Your task to perform on an android device: change the clock display to digital Image 0: 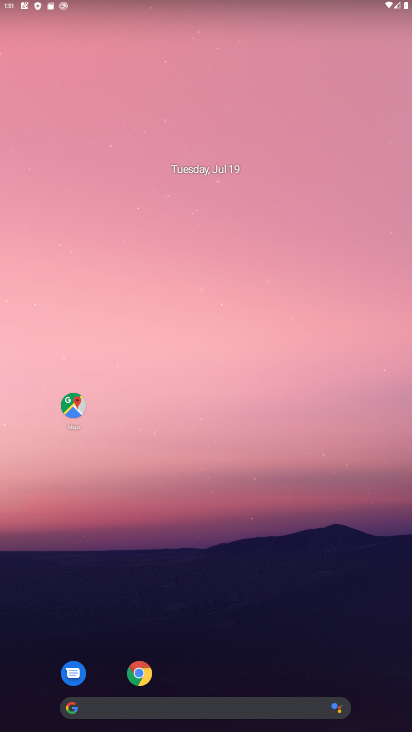
Step 0: drag from (232, 707) to (256, 367)
Your task to perform on an android device: change the clock display to digital Image 1: 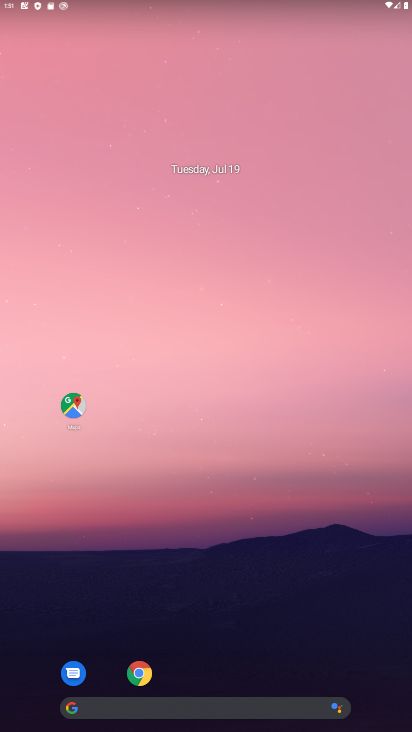
Step 1: drag from (195, 708) to (347, 149)
Your task to perform on an android device: change the clock display to digital Image 2: 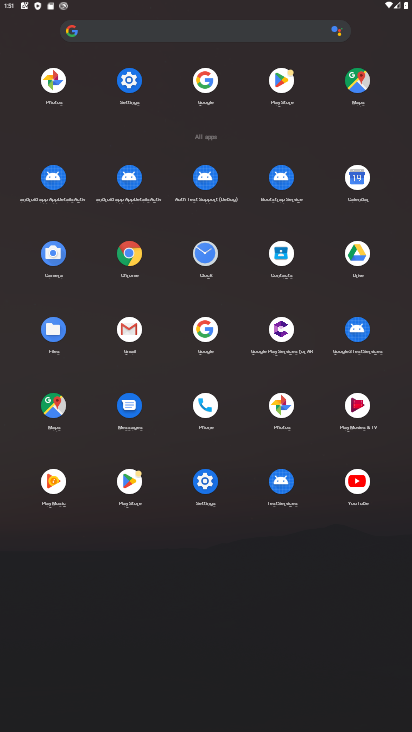
Step 2: click (205, 253)
Your task to perform on an android device: change the clock display to digital Image 3: 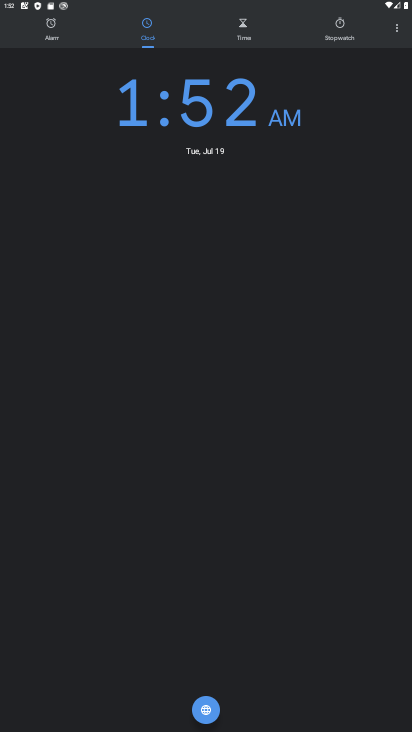
Step 3: click (399, 28)
Your task to perform on an android device: change the clock display to digital Image 4: 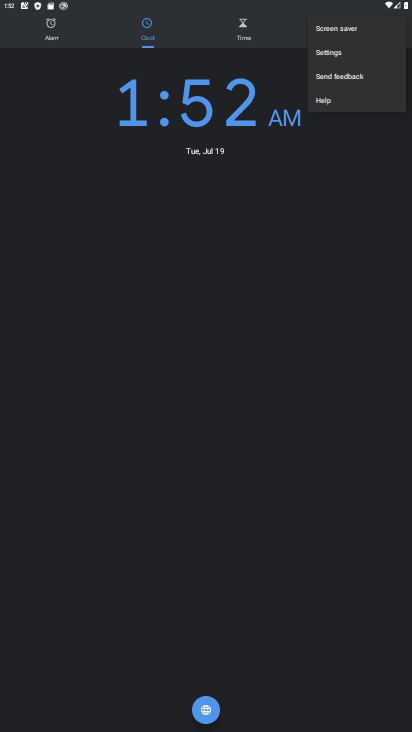
Step 4: click (337, 57)
Your task to perform on an android device: change the clock display to digital Image 5: 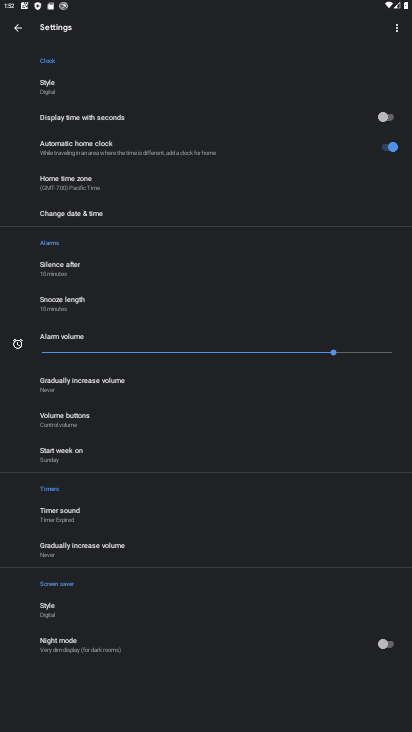
Step 5: click (60, 89)
Your task to perform on an android device: change the clock display to digital Image 6: 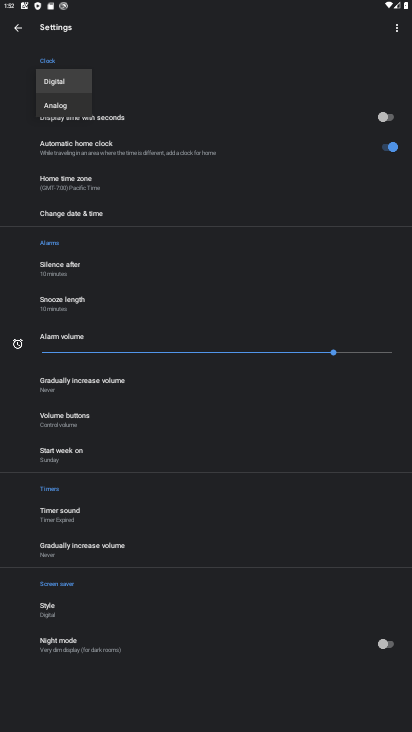
Step 6: click (60, 89)
Your task to perform on an android device: change the clock display to digital Image 7: 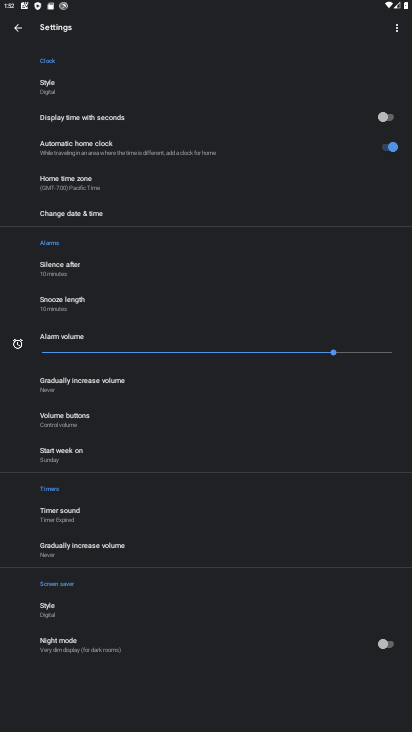
Step 7: task complete